Your task to perform on an android device: manage bookmarks in the chrome app Image 0: 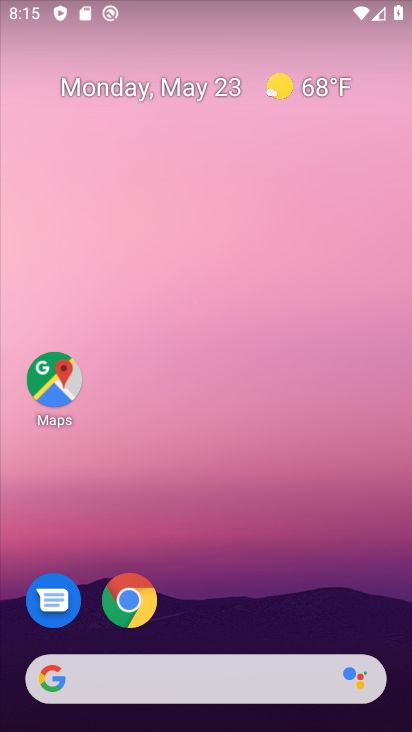
Step 0: click (135, 598)
Your task to perform on an android device: manage bookmarks in the chrome app Image 1: 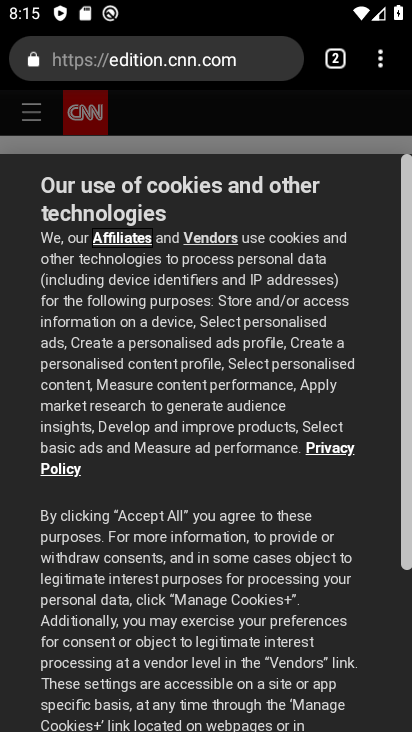
Step 1: click (382, 58)
Your task to perform on an android device: manage bookmarks in the chrome app Image 2: 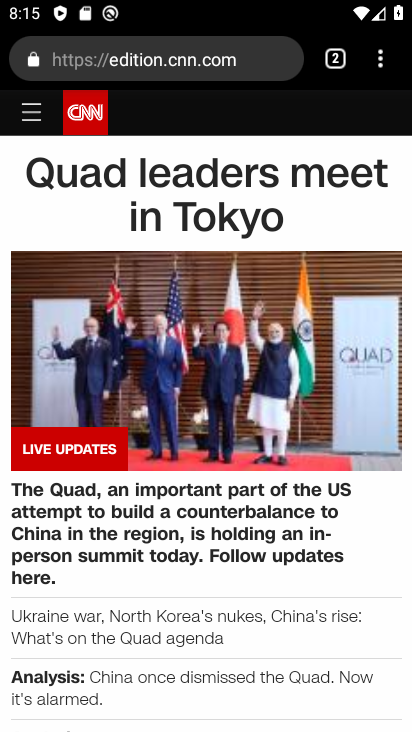
Step 2: click (387, 66)
Your task to perform on an android device: manage bookmarks in the chrome app Image 3: 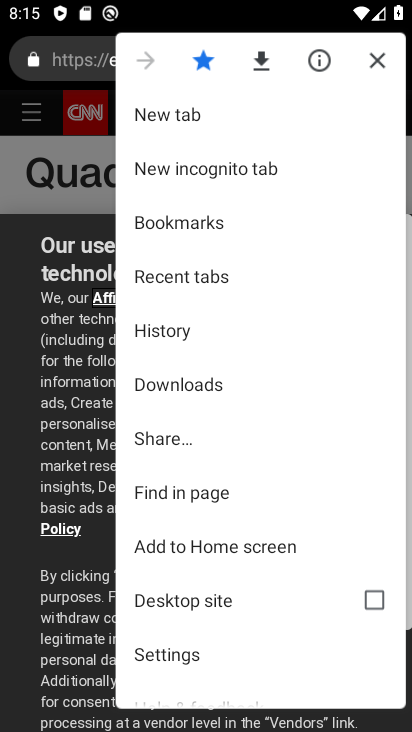
Step 3: click (193, 228)
Your task to perform on an android device: manage bookmarks in the chrome app Image 4: 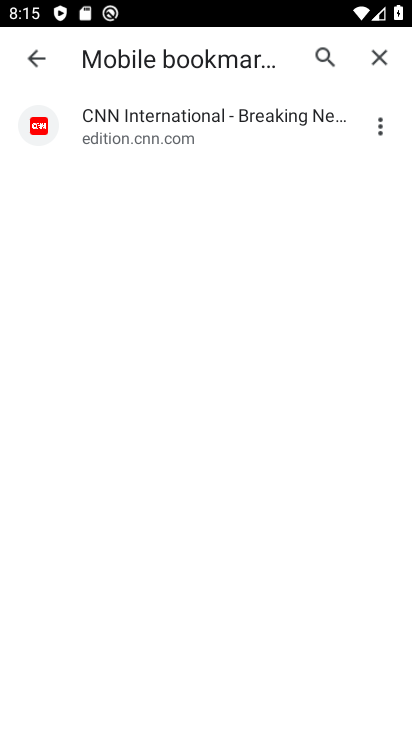
Step 4: task complete